Your task to perform on an android device: Search for vegetarian restaurants on Maps Image 0: 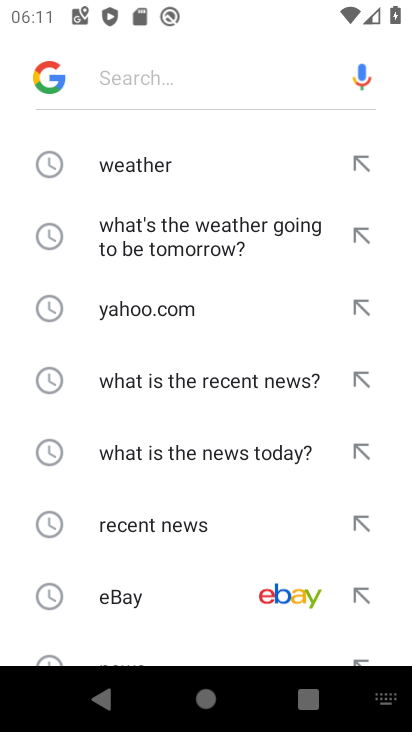
Step 0: press home button
Your task to perform on an android device: Search for vegetarian restaurants on Maps Image 1: 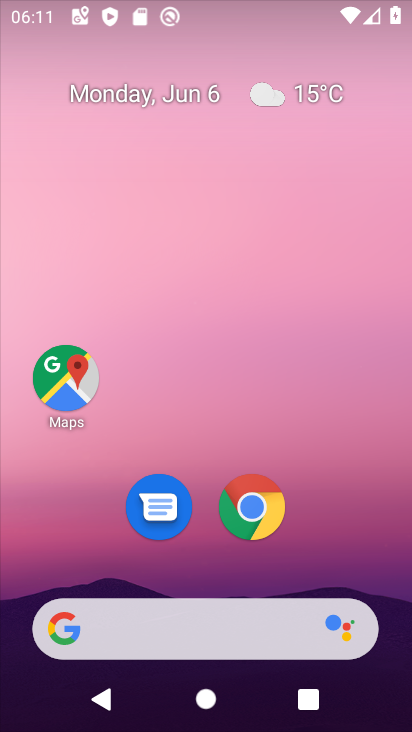
Step 1: drag from (202, 556) to (242, 9)
Your task to perform on an android device: Search for vegetarian restaurants on Maps Image 2: 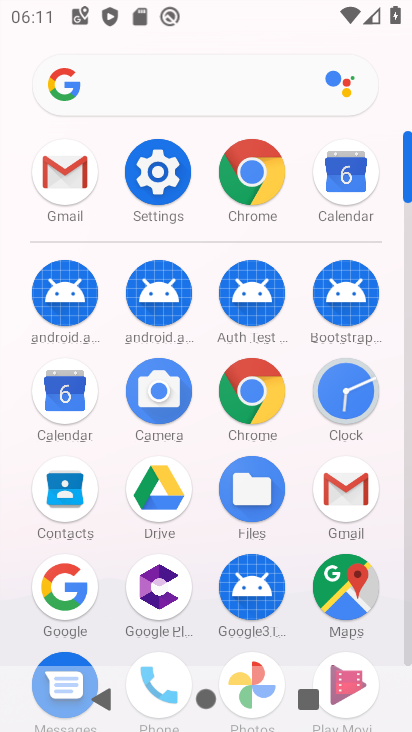
Step 2: press home button
Your task to perform on an android device: Search for vegetarian restaurants on Maps Image 3: 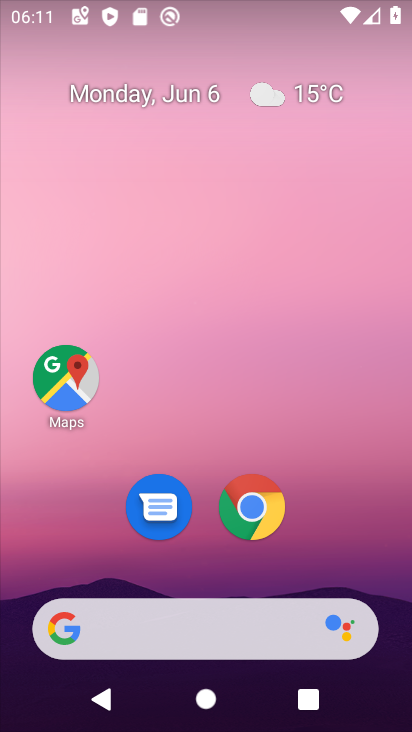
Step 3: click (69, 398)
Your task to perform on an android device: Search for vegetarian restaurants on Maps Image 4: 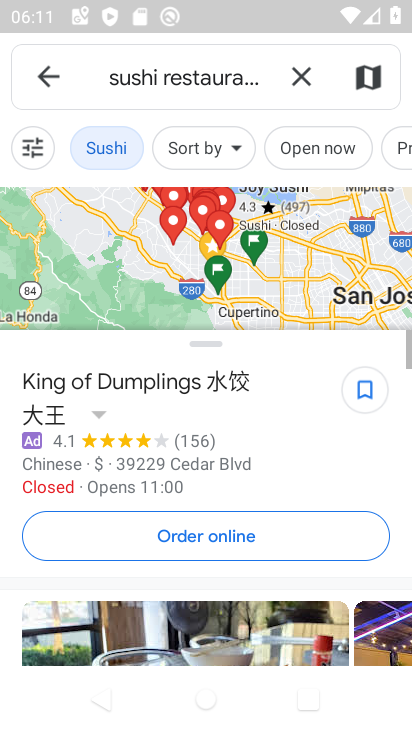
Step 4: click (297, 82)
Your task to perform on an android device: Search for vegetarian restaurants on Maps Image 5: 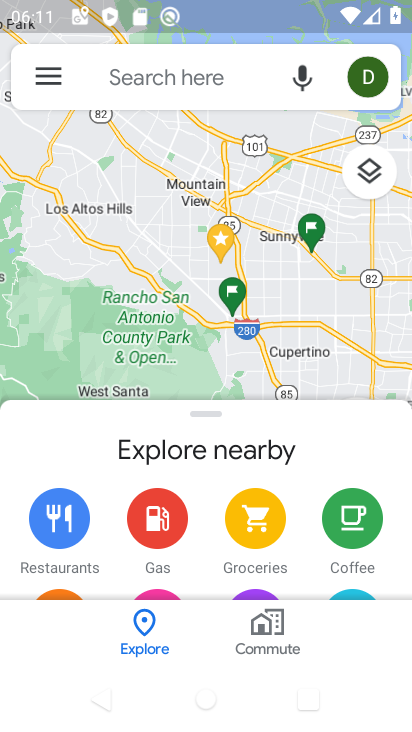
Step 5: click (178, 81)
Your task to perform on an android device: Search for vegetarian restaurants on Maps Image 6: 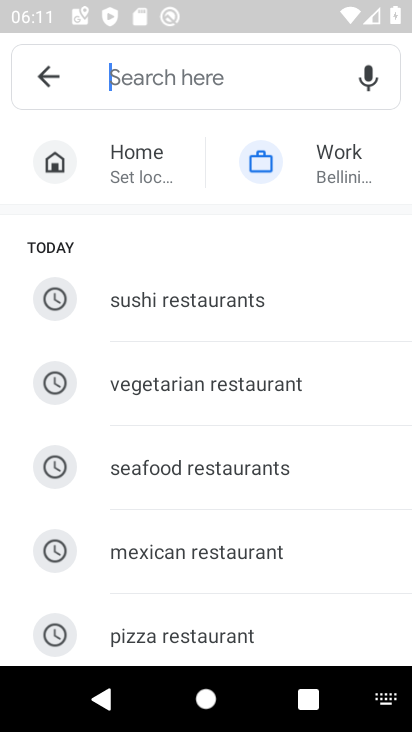
Step 6: click (198, 398)
Your task to perform on an android device: Search for vegetarian restaurants on Maps Image 7: 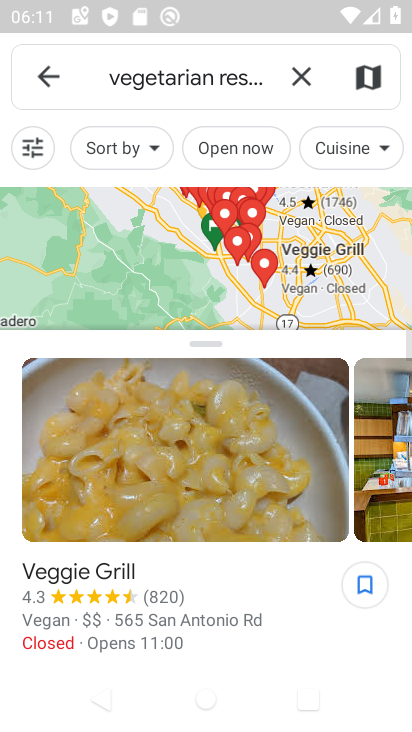
Step 7: task complete